Your task to perform on an android device: change keyboard looks Image 0: 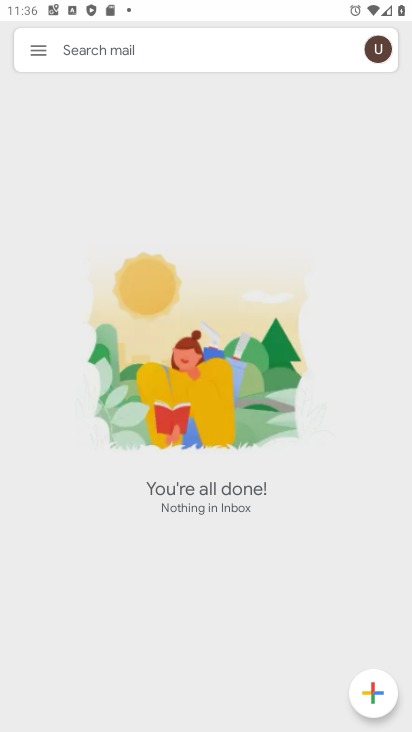
Step 0: press home button
Your task to perform on an android device: change keyboard looks Image 1: 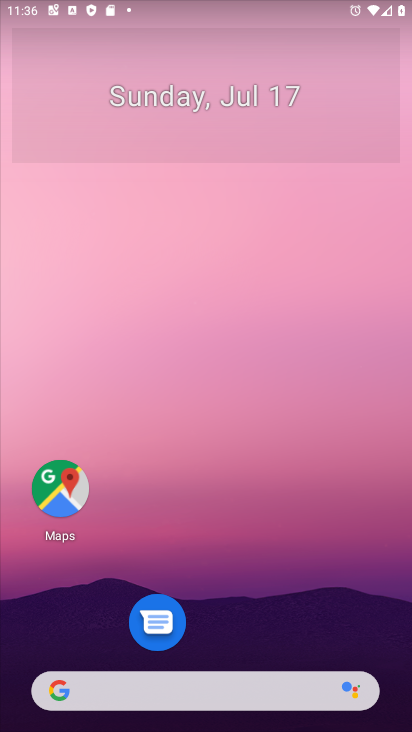
Step 1: drag from (213, 667) to (238, 1)
Your task to perform on an android device: change keyboard looks Image 2: 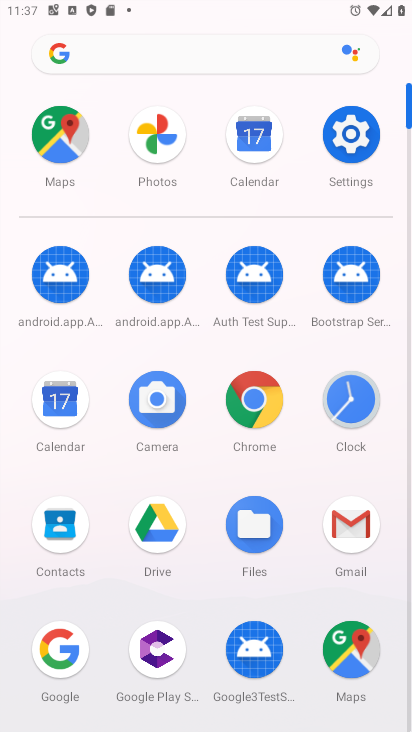
Step 2: click (338, 145)
Your task to perform on an android device: change keyboard looks Image 3: 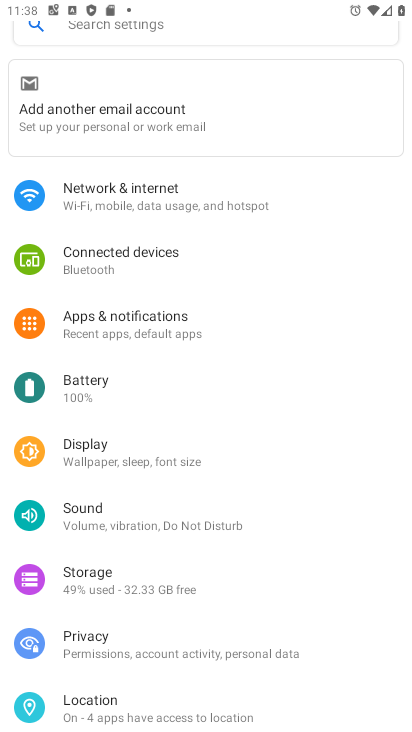
Step 3: drag from (248, 606) to (301, 28)
Your task to perform on an android device: change keyboard looks Image 4: 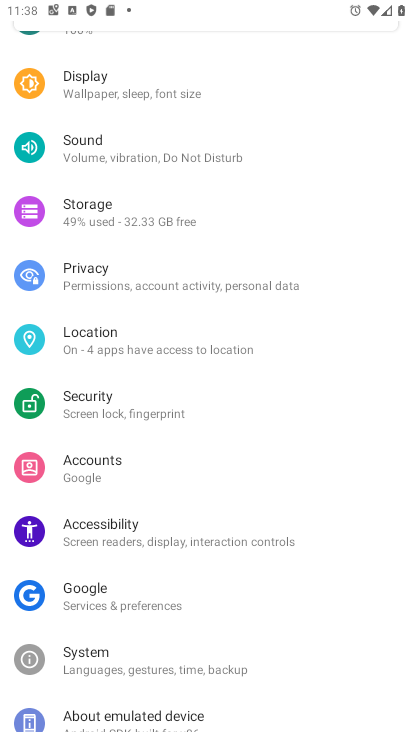
Step 4: click (178, 661)
Your task to perform on an android device: change keyboard looks Image 5: 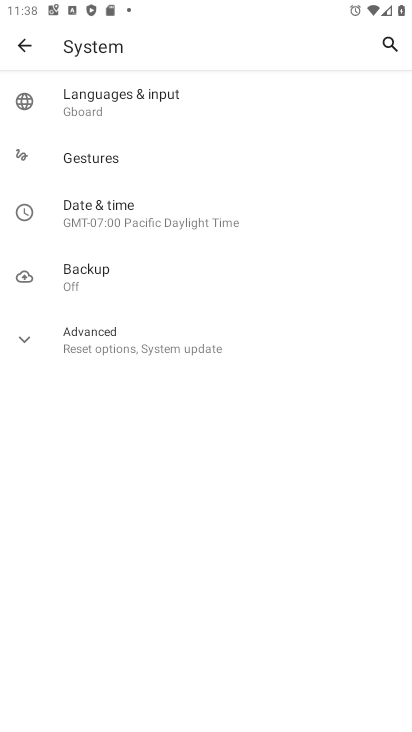
Step 5: click (165, 96)
Your task to perform on an android device: change keyboard looks Image 6: 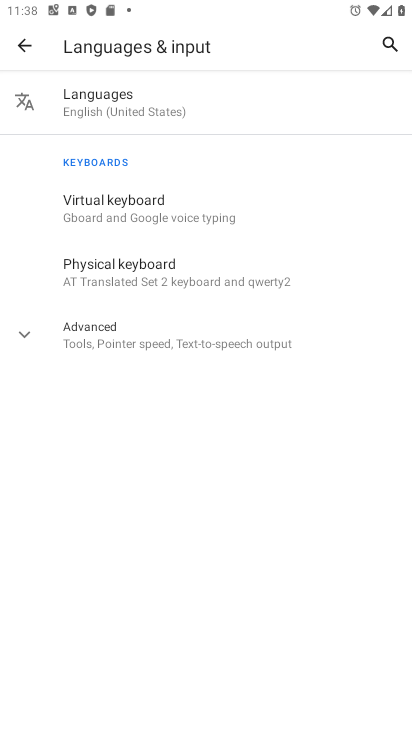
Step 6: click (156, 206)
Your task to perform on an android device: change keyboard looks Image 7: 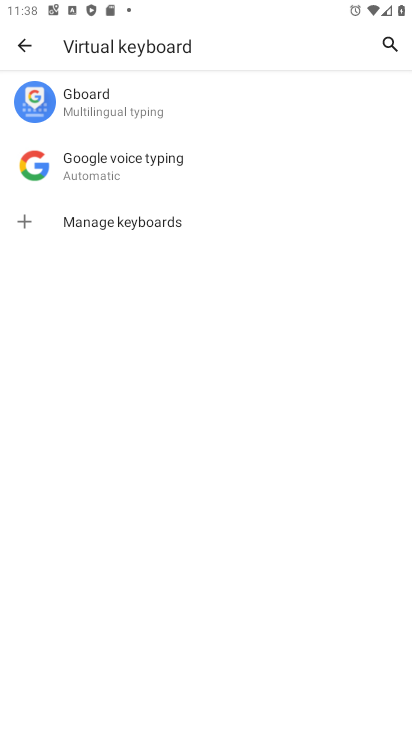
Step 7: click (132, 110)
Your task to perform on an android device: change keyboard looks Image 8: 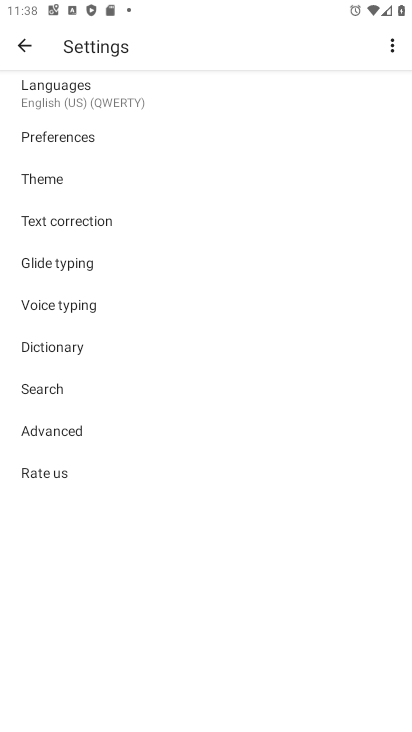
Step 8: click (54, 175)
Your task to perform on an android device: change keyboard looks Image 9: 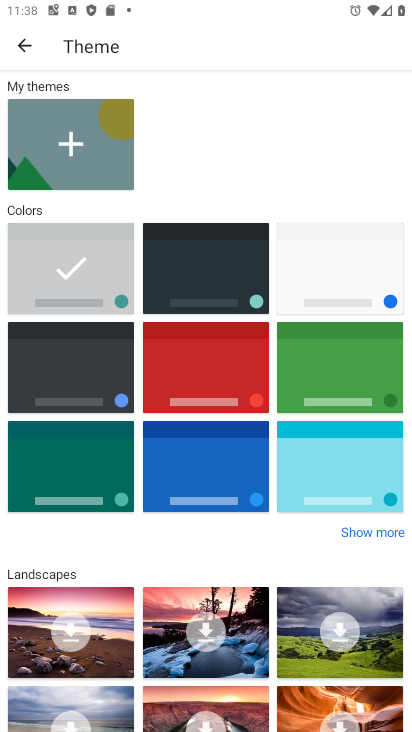
Step 9: click (160, 260)
Your task to perform on an android device: change keyboard looks Image 10: 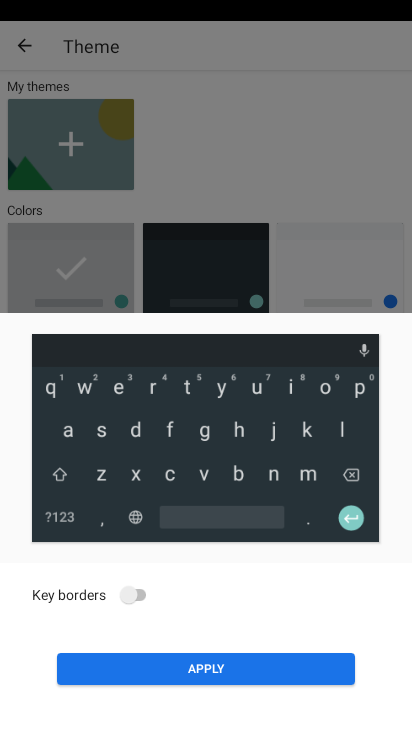
Step 10: click (267, 662)
Your task to perform on an android device: change keyboard looks Image 11: 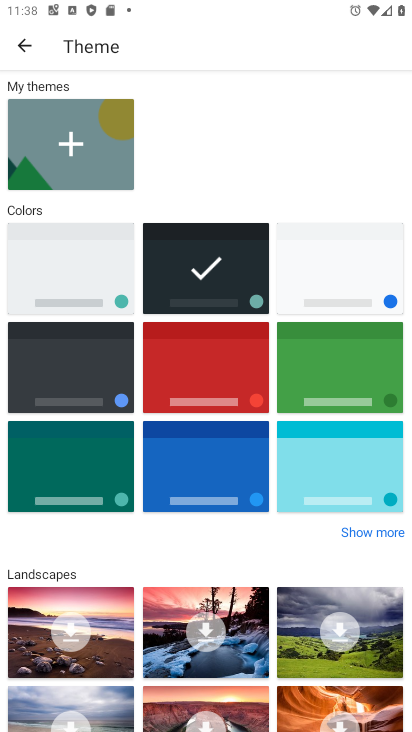
Step 11: task complete